Your task to perform on an android device: turn off translation in the chrome app Image 0: 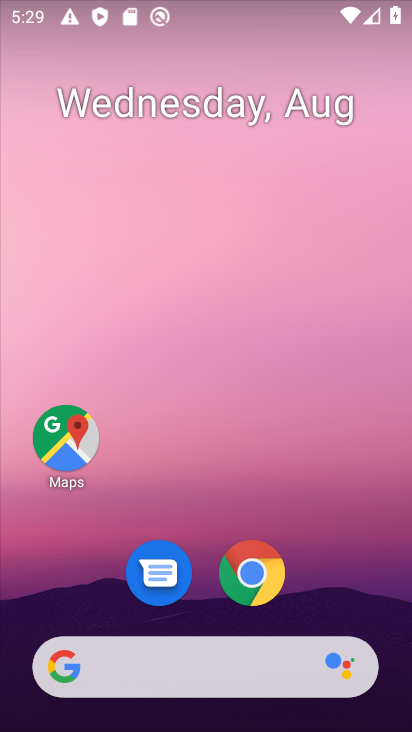
Step 0: drag from (203, 364) to (406, 89)
Your task to perform on an android device: turn off translation in the chrome app Image 1: 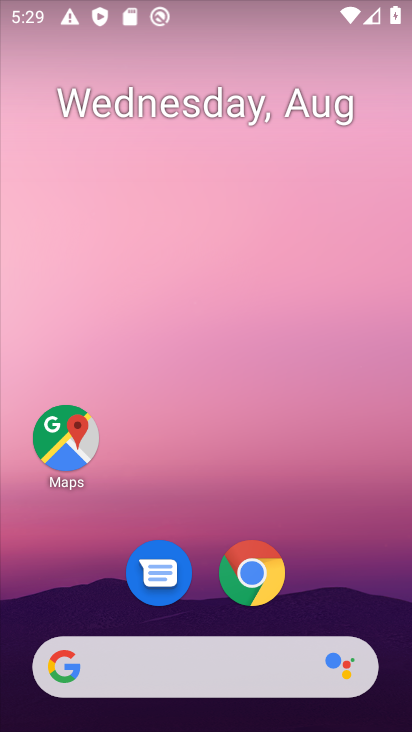
Step 1: drag from (285, 629) to (181, 1)
Your task to perform on an android device: turn off translation in the chrome app Image 2: 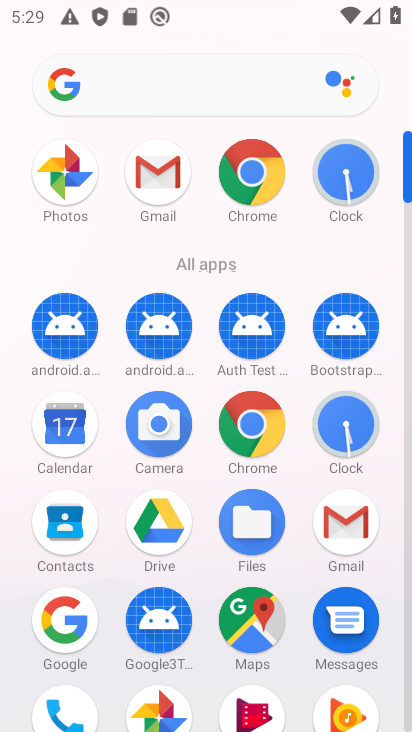
Step 2: click (263, 182)
Your task to perform on an android device: turn off translation in the chrome app Image 3: 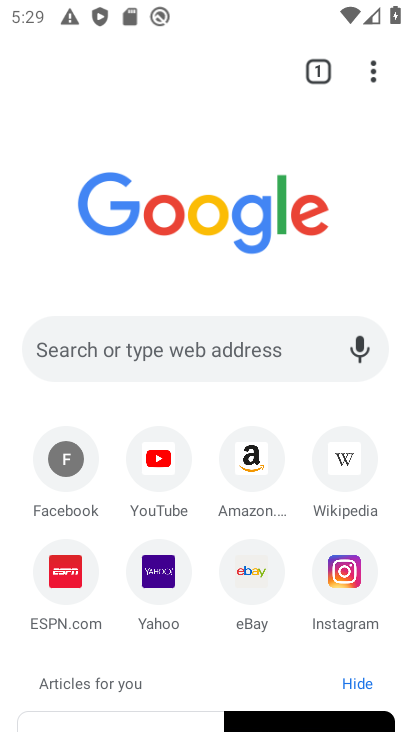
Step 3: drag from (366, 58) to (202, 605)
Your task to perform on an android device: turn off translation in the chrome app Image 4: 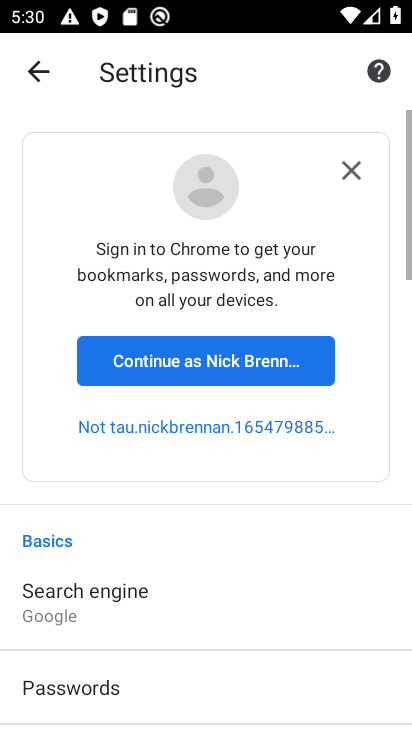
Step 4: drag from (202, 603) to (98, 182)
Your task to perform on an android device: turn off translation in the chrome app Image 5: 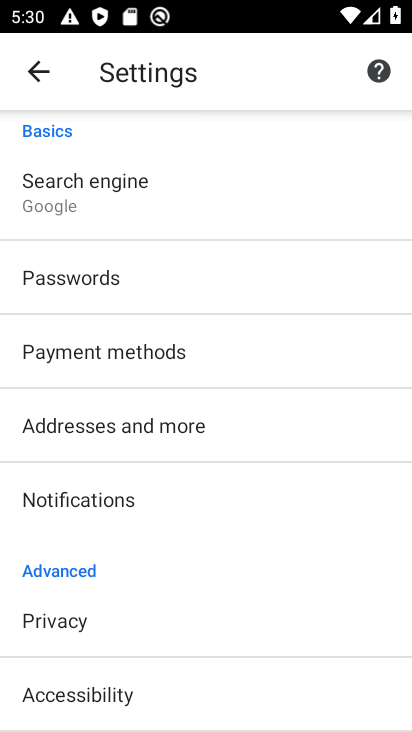
Step 5: drag from (146, 659) to (119, 292)
Your task to perform on an android device: turn off translation in the chrome app Image 6: 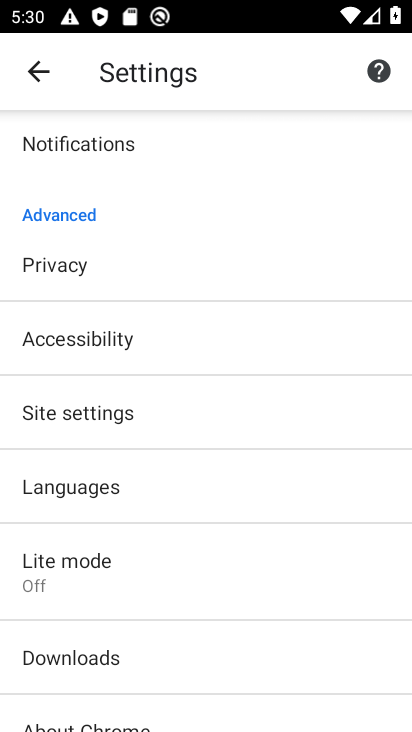
Step 6: click (72, 476)
Your task to perform on an android device: turn off translation in the chrome app Image 7: 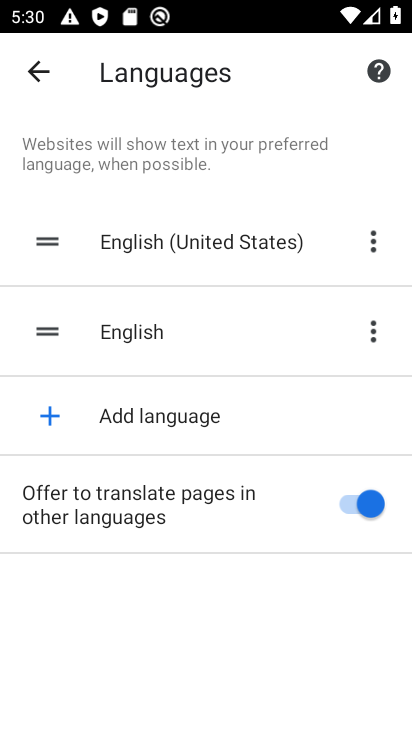
Step 7: click (346, 508)
Your task to perform on an android device: turn off translation in the chrome app Image 8: 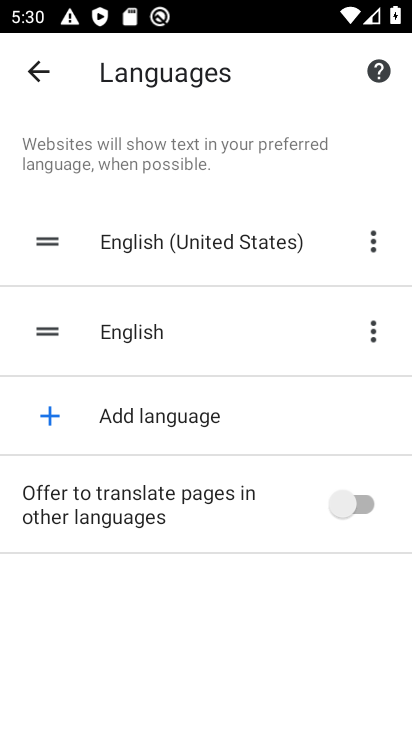
Step 8: task complete